Your task to perform on an android device: Go to notification settings Image 0: 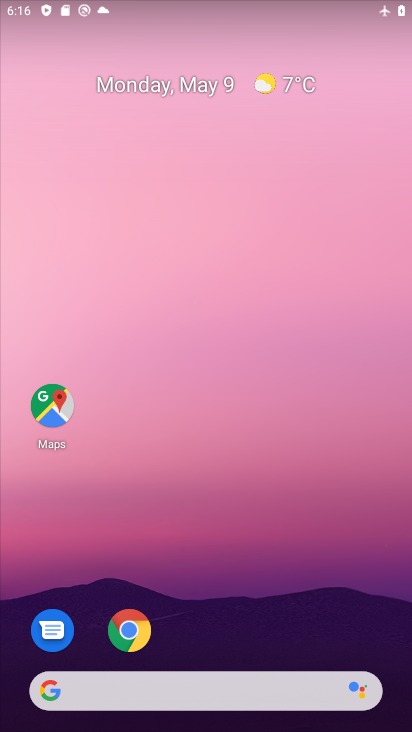
Step 0: drag from (285, 609) to (239, 206)
Your task to perform on an android device: Go to notification settings Image 1: 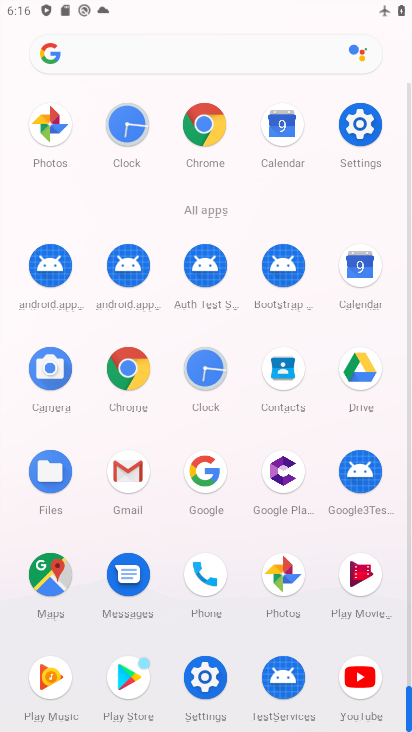
Step 1: click (364, 138)
Your task to perform on an android device: Go to notification settings Image 2: 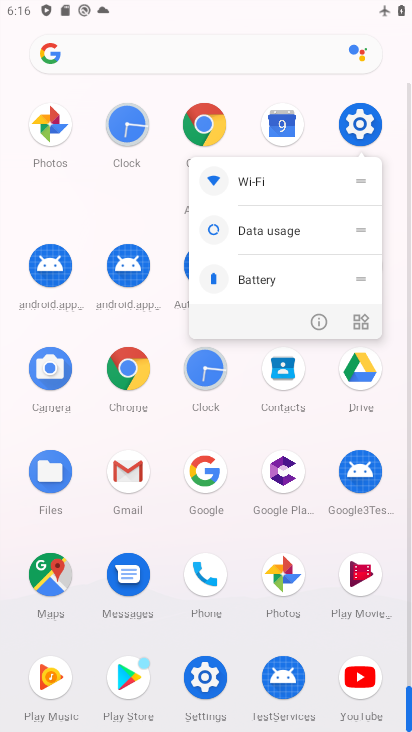
Step 2: click (360, 124)
Your task to perform on an android device: Go to notification settings Image 3: 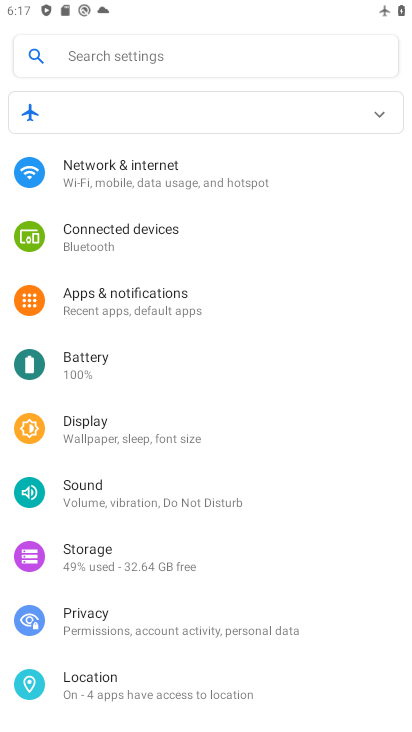
Step 3: drag from (162, 614) to (166, 320)
Your task to perform on an android device: Go to notification settings Image 4: 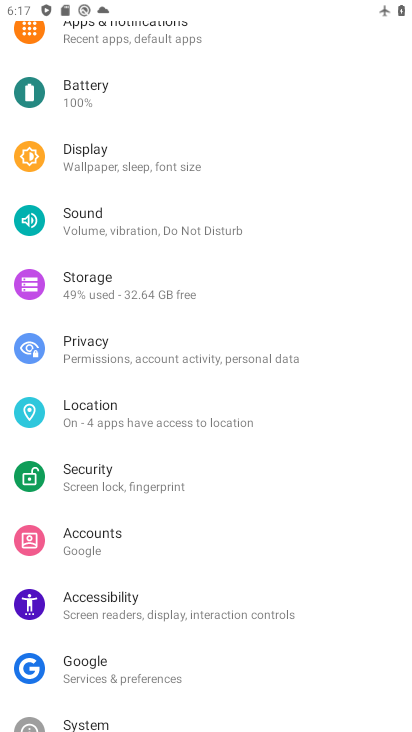
Step 4: drag from (224, 153) to (199, 399)
Your task to perform on an android device: Go to notification settings Image 5: 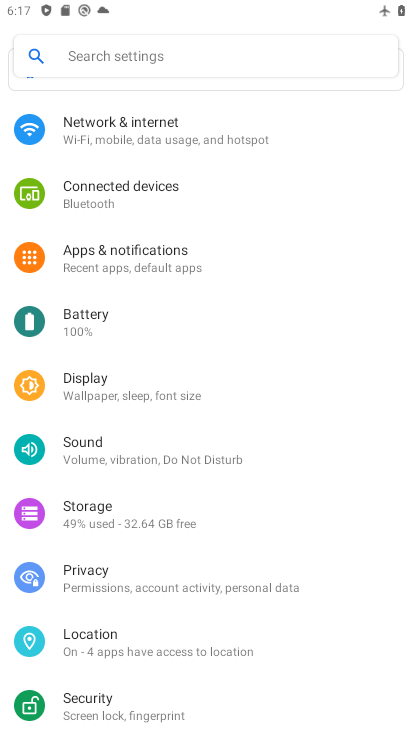
Step 5: drag from (329, 286) to (279, 487)
Your task to perform on an android device: Go to notification settings Image 6: 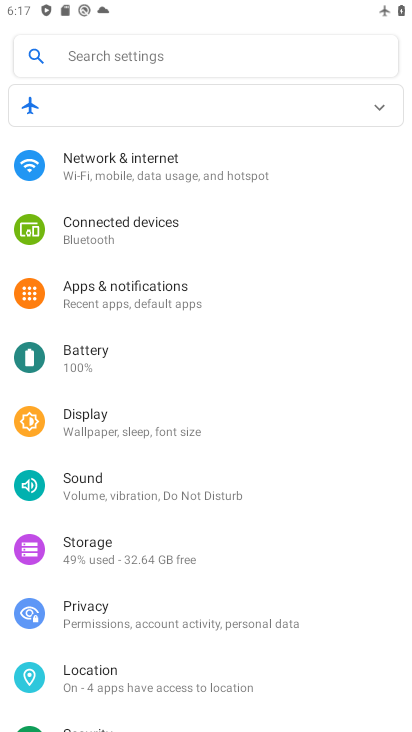
Step 6: click (93, 291)
Your task to perform on an android device: Go to notification settings Image 7: 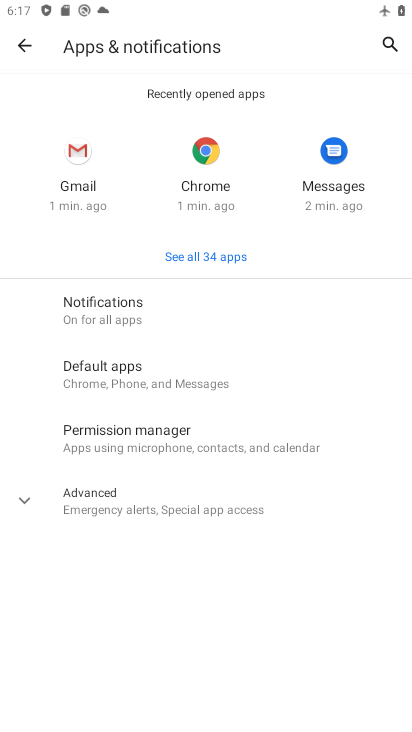
Step 7: click (101, 312)
Your task to perform on an android device: Go to notification settings Image 8: 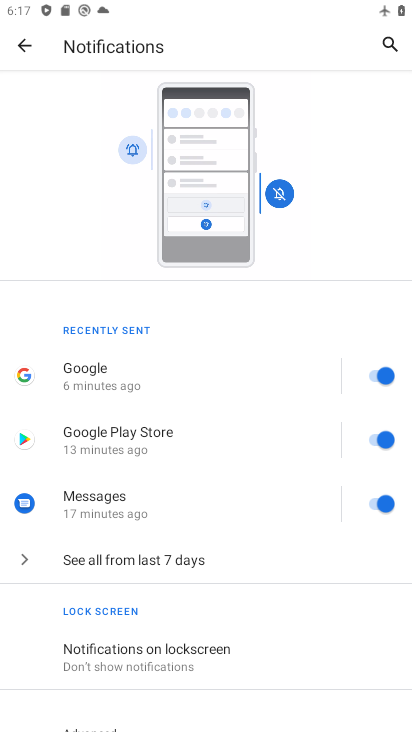
Step 8: task complete